Your task to perform on an android device: delete the emails in spam in the gmail app Image 0: 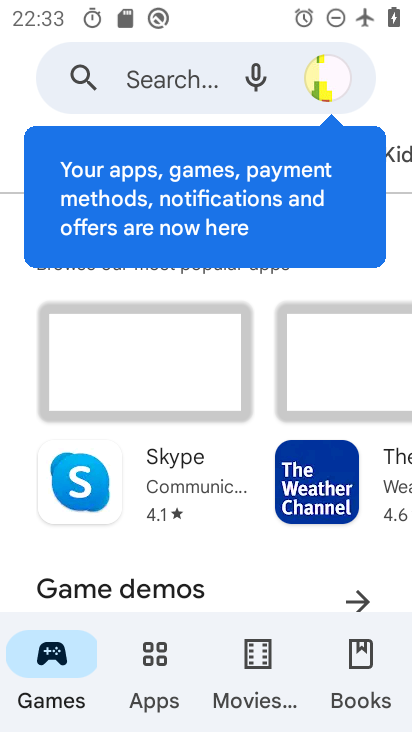
Step 0: press home button
Your task to perform on an android device: delete the emails in spam in the gmail app Image 1: 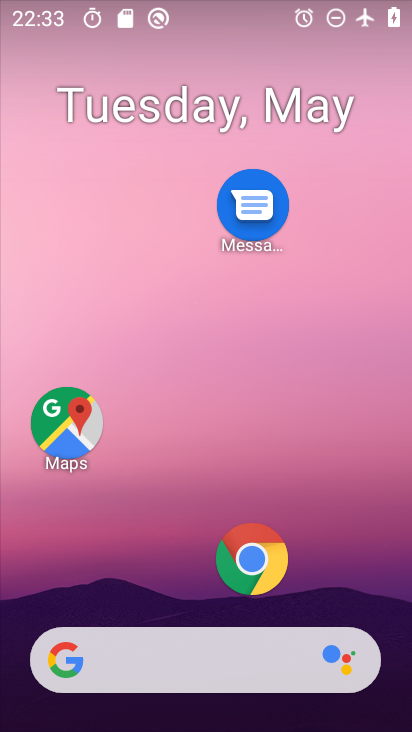
Step 1: drag from (186, 594) to (187, 151)
Your task to perform on an android device: delete the emails in spam in the gmail app Image 2: 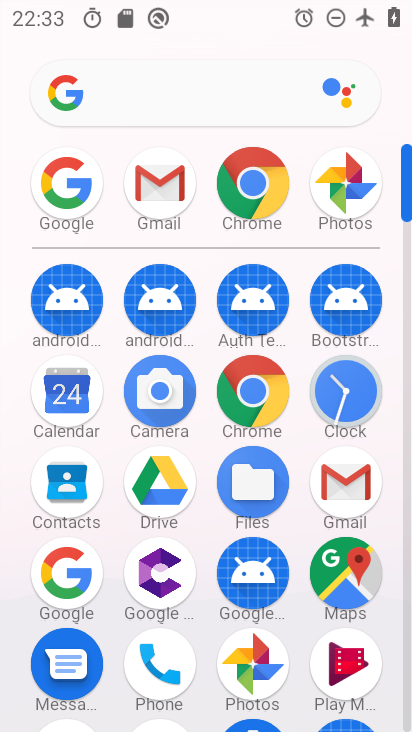
Step 2: click (182, 176)
Your task to perform on an android device: delete the emails in spam in the gmail app Image 3: 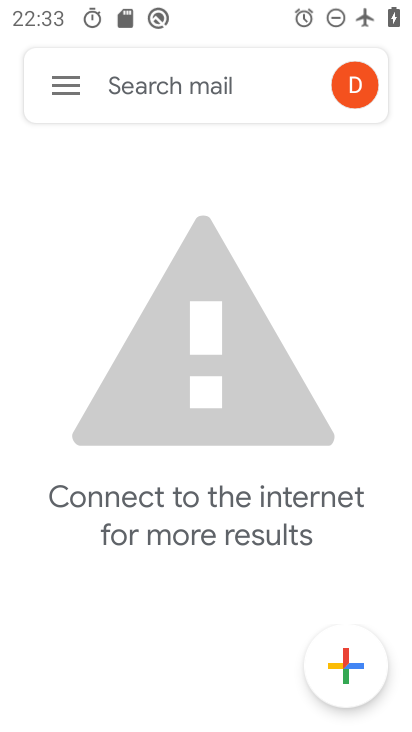
Step 3: click (65, 99)
Your task to perform on an android device: delete the emails in spam in the gmail app Image 4: 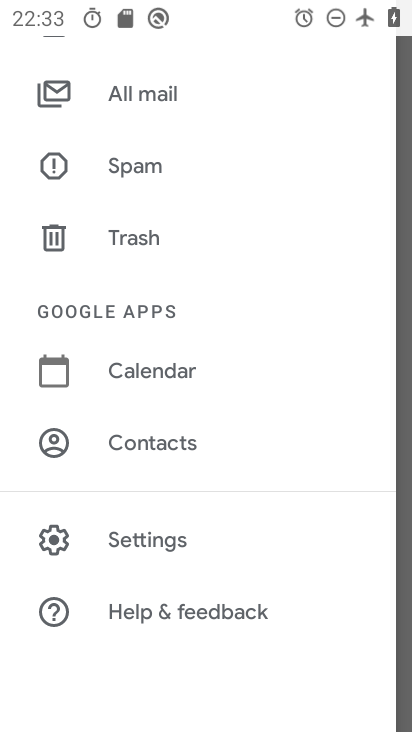
Step 4: click (143, 163)
Your task to perform on an android device: delete the emails in spam in the gmail app Image 5: 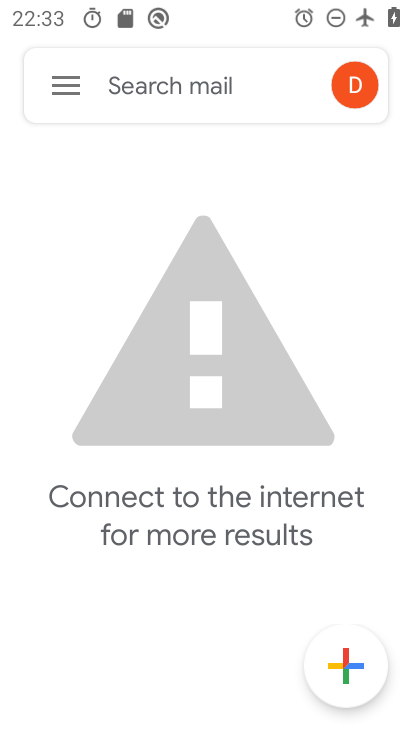
Step 5: task complete